Your task to perform on an android device: What's the weather going to be this weekend? Image 0: 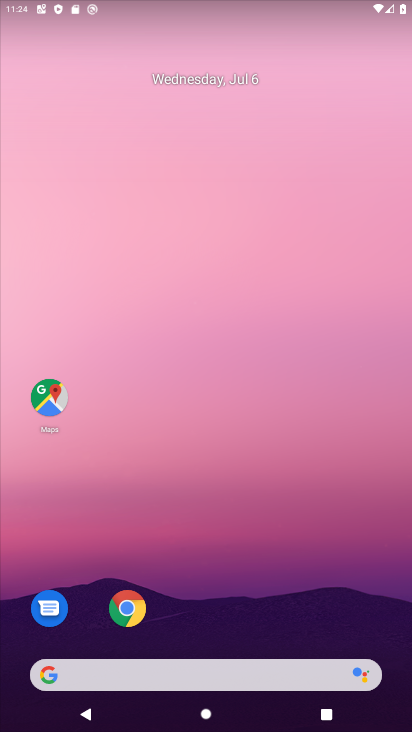
Step 0: drag from (269, 609) to (274, 54)
Your task to perform on an android device: What's the weather going to be this weekend? Image 1: 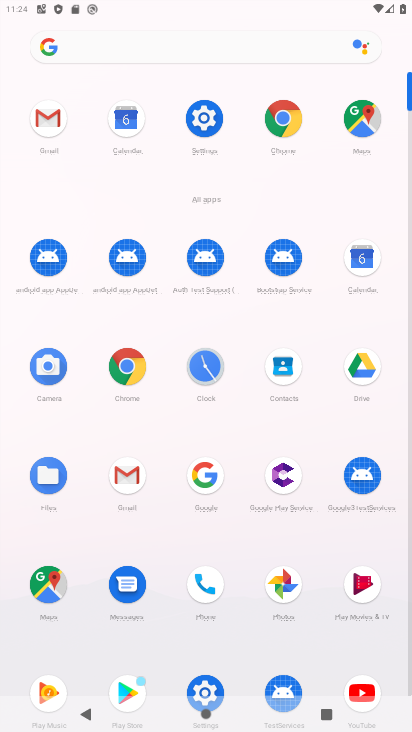
Step 1: click (265, 123)
Your task to perform on an android device: What's the weather going to be this weekend? Image 2: 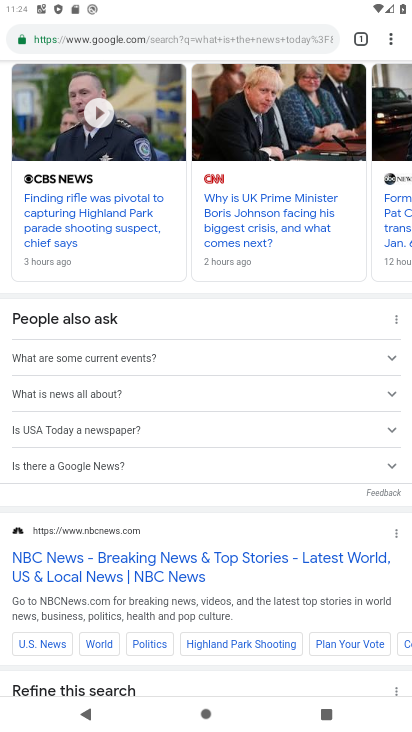
Step 2: drag from (214, 269) to (224, 691)
Your task to perform on an android device: What's the weather going to be this weekend? Image 3: 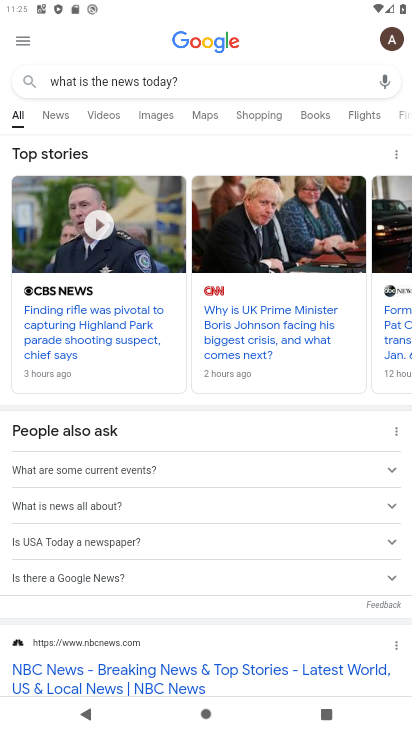
Step 3: drag from (233, 105) to (272, 433)
Your task to perform on an android device: What's the weather going to be this weekend? Image 4: 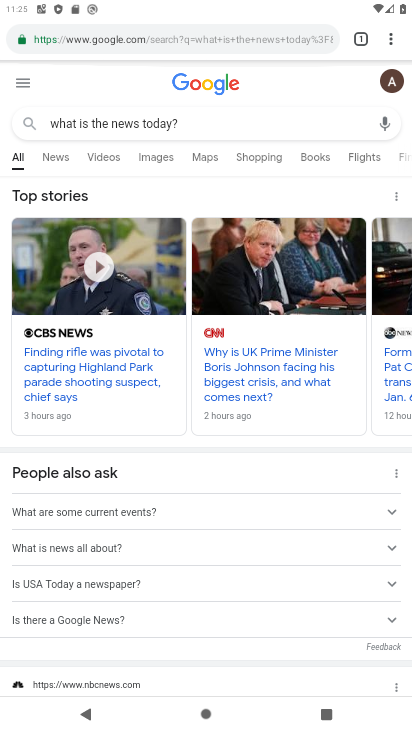
Step 4: click (207, 39)
Your task to perform on an android device: What's the weather going to be this weekend? Image 5: 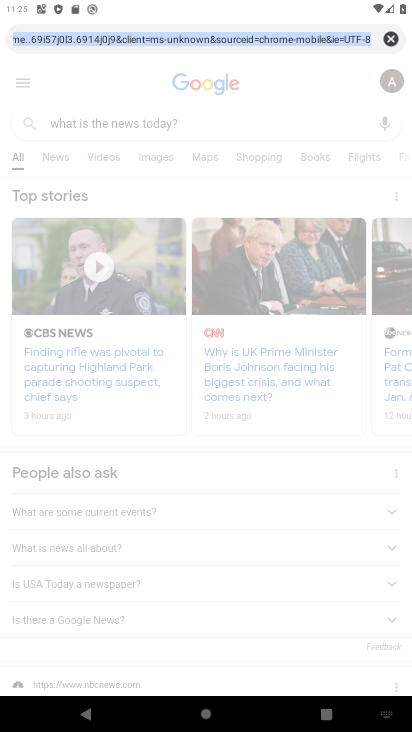
Step 5: type "What's the weather going to be this weekend?"
Your task to perform on an android device: What's the weather going to be this weekend? Image 6: 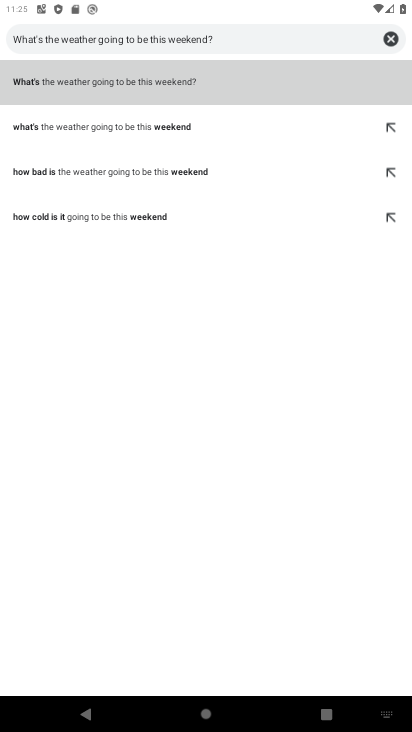
Step 6: click (247, 79)
Your task to perform on an android device: What's the weather going to be this weekend? Image 7: 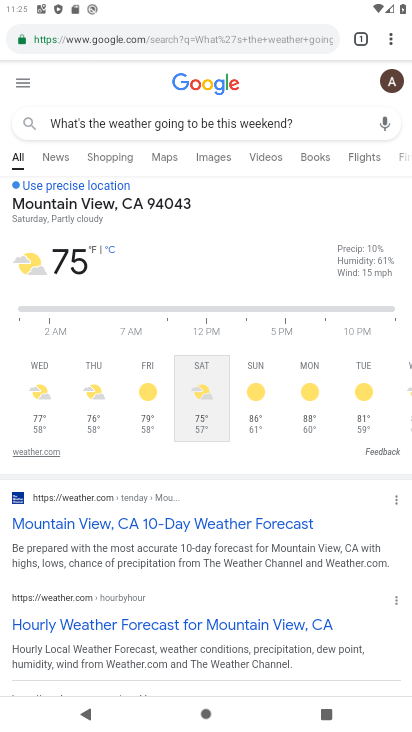
Step 7: task complete